Your task to perform on an android device: Open network settings Image 0: 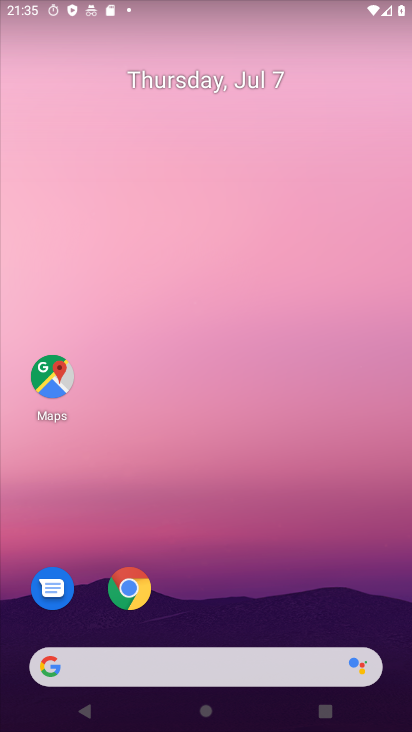
Step 0: drag from (233, 571) to (210, 321)
Your task to perform on an android device: Open network settings Image 1: 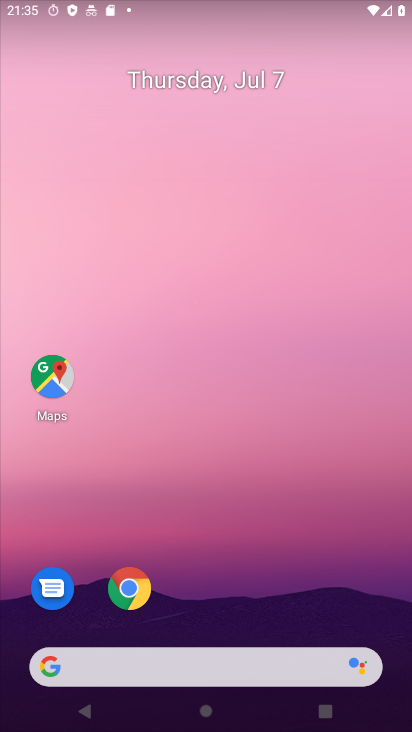
Step 1: drag from (249, 625) to (176, 68)
Your task to perform on an android device: Open network settings Image 2: 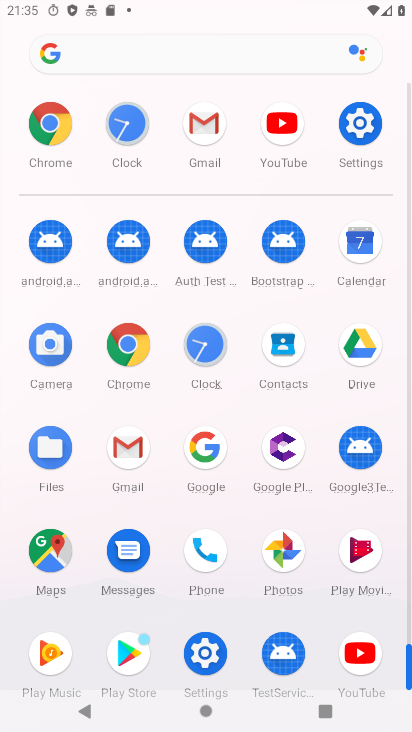
Step 2: click (361, 121)
Your task to perform on an android device: Open network settings Image 3: 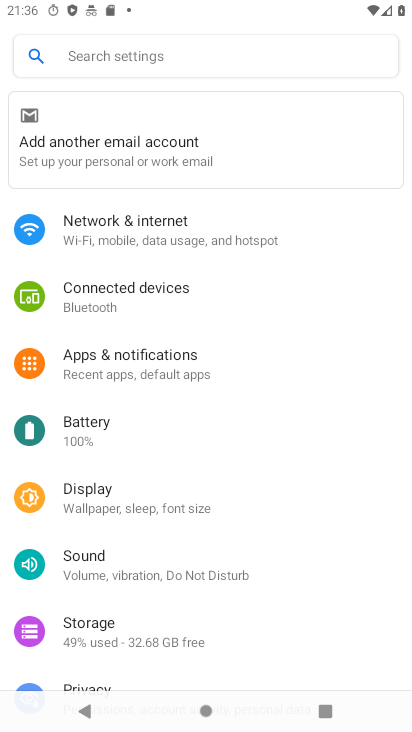
Step 3: click (136, 238)
Your task to perform on an android device: Open network settings Image 4: 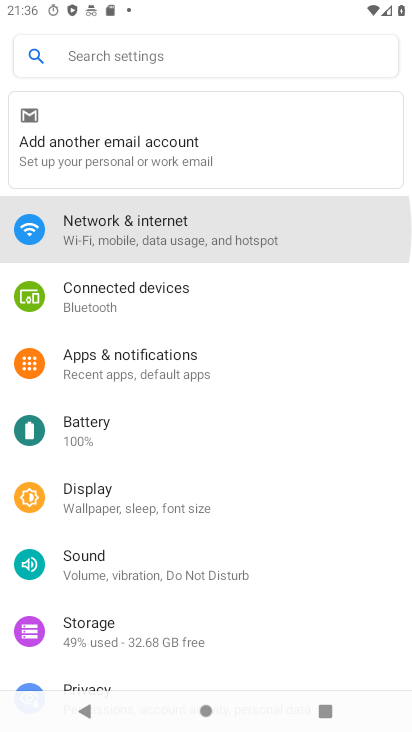
Step 4: click (136, 237)
Your task to perform on an android device: Open network settings Image 5: 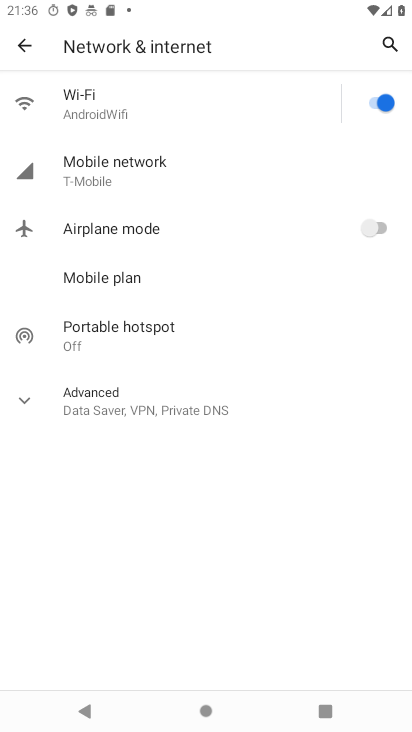
Step 5: click (86, 168)
Your task to perform on an android device: Open network settings Image 6: 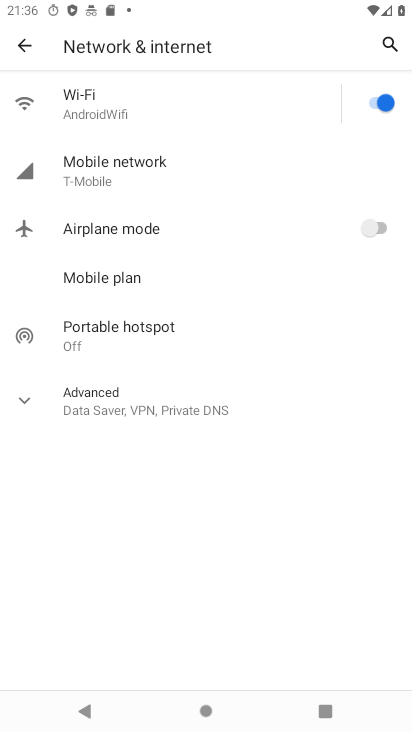
Step 6: click (88, 168)
Your task to perform on an android device: Open network settings Image 7: 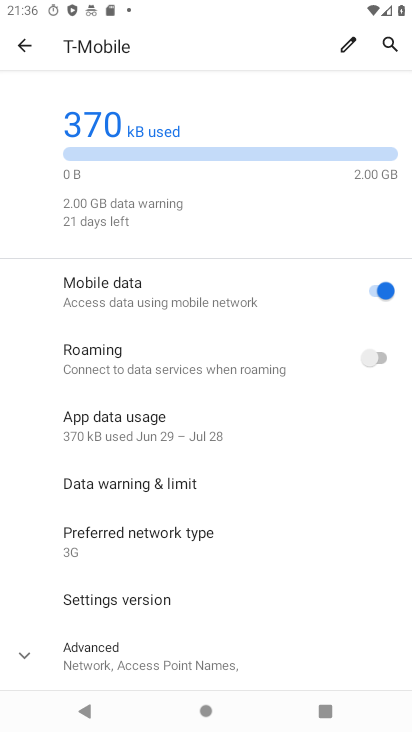
Step 7: task complete